Your task to perform on an android device: Open calendar and show me the second week of next month Image 0: 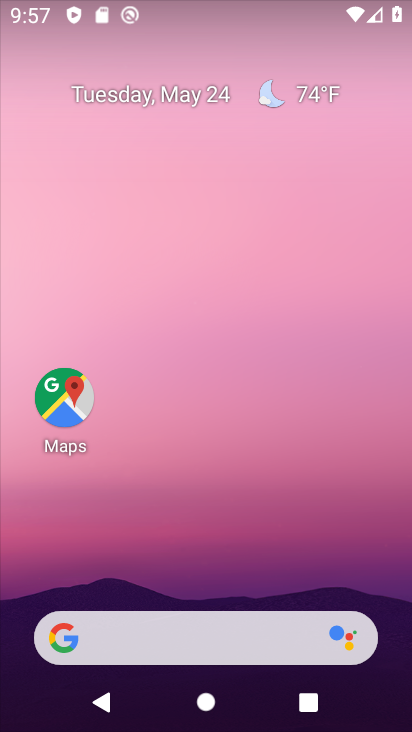
Step 0: drag from (216, 581) to (86, 18)
Your task to perform on an android device: Open calendar and show me the second week of next month Image 1: 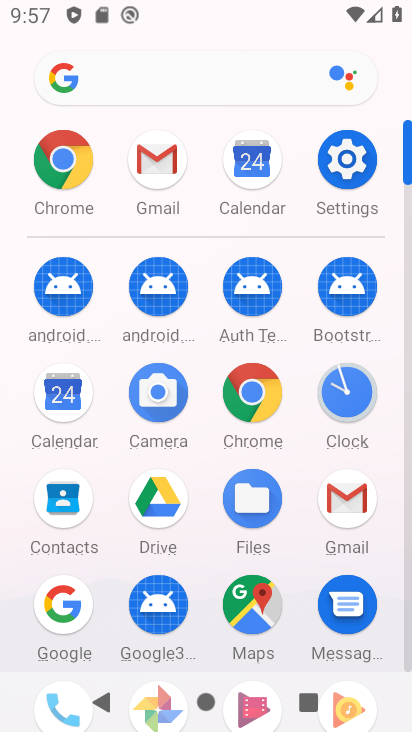
Step 1: click (237, 183)
Your task to perform on an android device: Open calendar and show me the second week of next month Image 2: 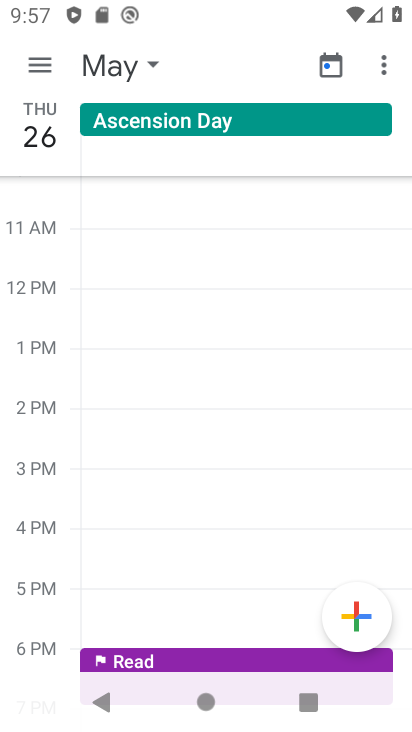
Step 2: click (20, 66)
Your task to perform on an android device: Open calendar and show me the second week of next month Image 3: 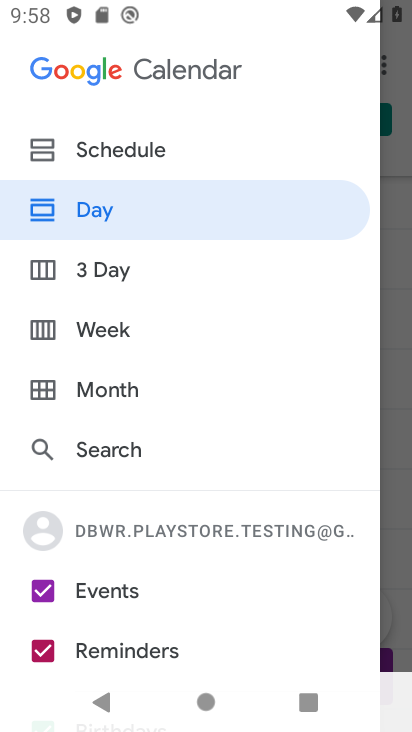
Step 3: click (80, 320)
Your task to perform on an android device: Open calendar and show me the second week of next month Image 4: 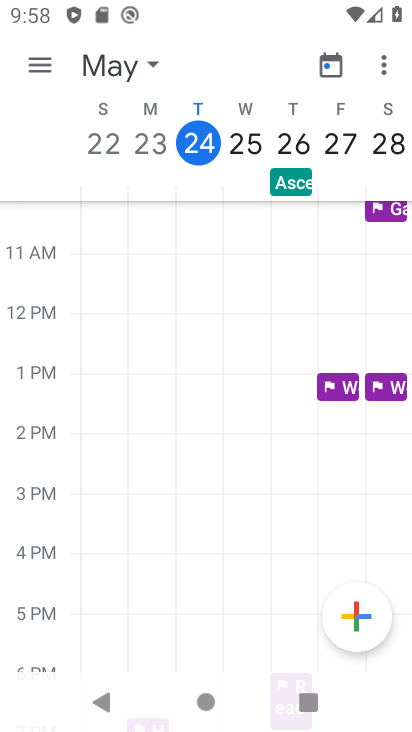
Step 4: task complete